Your task to perform on an android device: Open Google Chrome and open the bookmarks view Image 0: 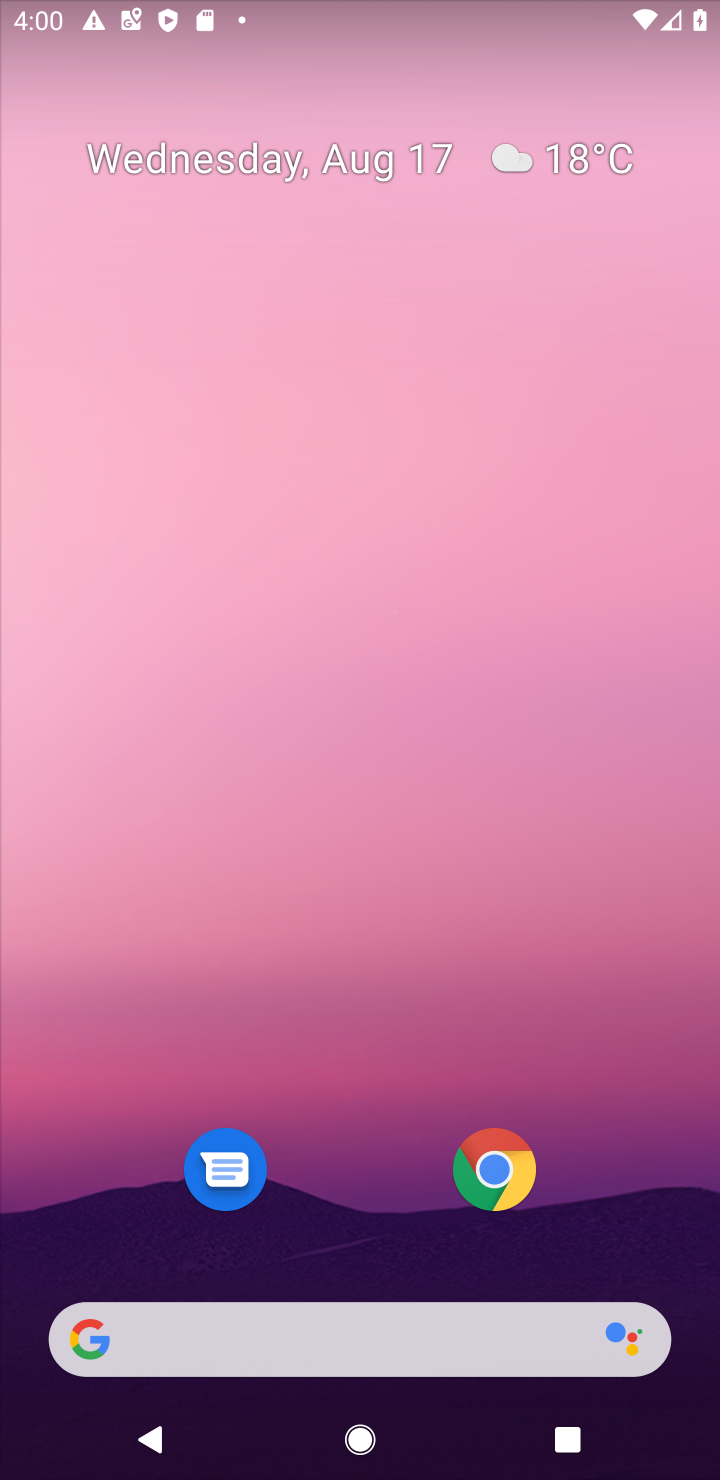
Step 0: drag from (393, 1187) to (561, 145)
Your task to perform on an android device: Open Google Chrome and open the bookmarks view Image 1: 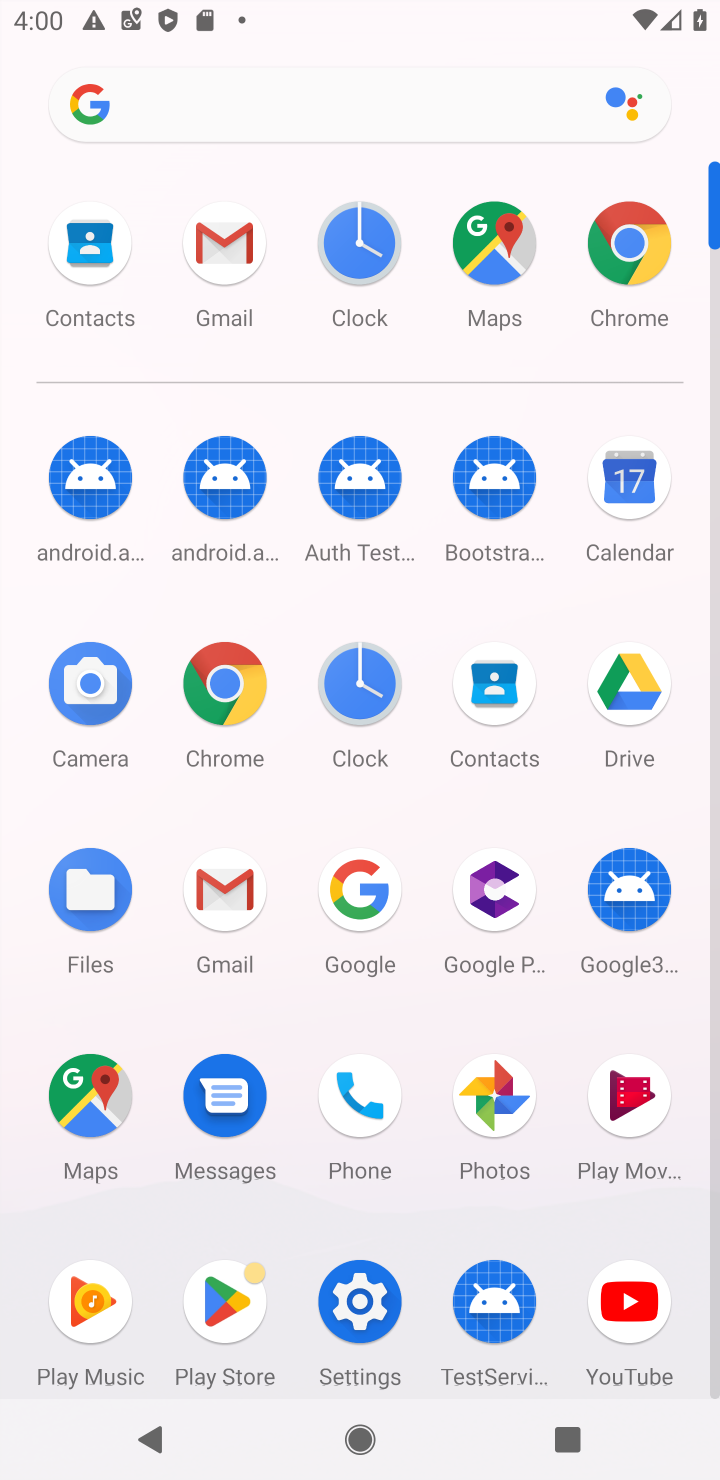
Step 1: click (616, 236)
Your task to perform on an android device: Open Google Chrome and open the bookmarks view Image 2: 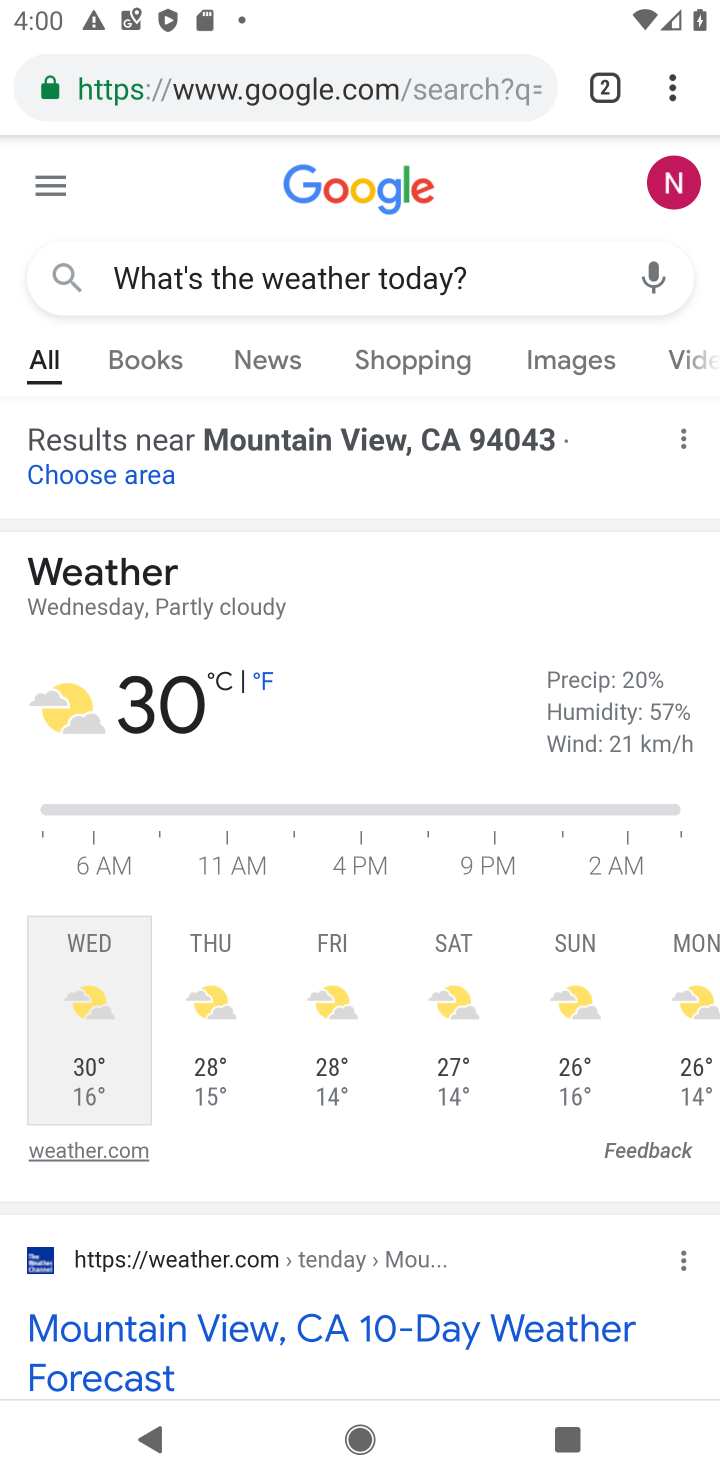
Step 2: task complete